Your task to perform on an android device: change text size in settings app Image 0: 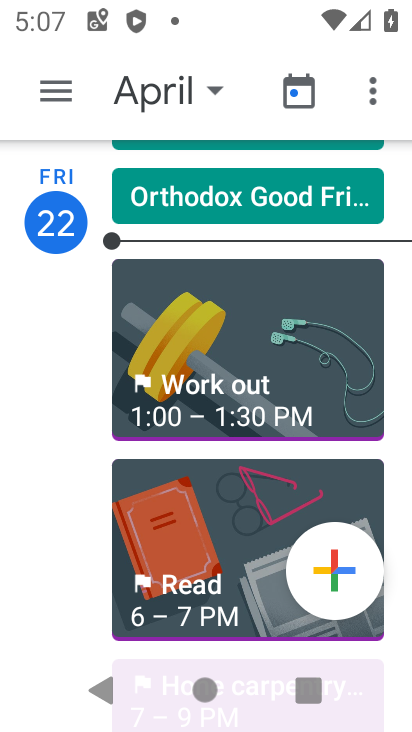
Step 0: press home button
Your task to perform on an android device: change text size in settings app Image 1: 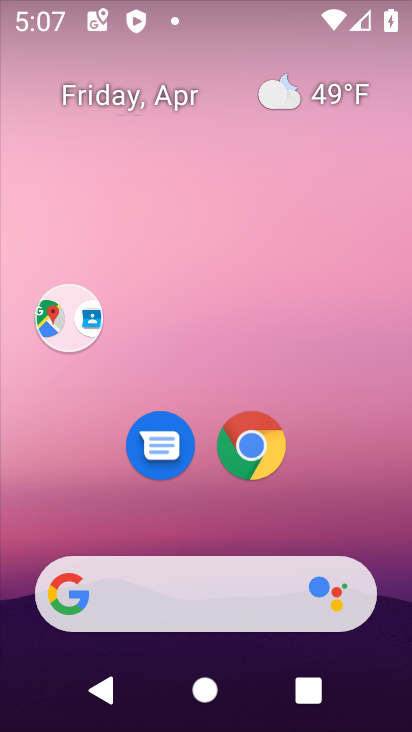
Step 1: drag from (334, 487) to (293, 151)
Your task to perform on an android device: change text size in settings app Image 2: 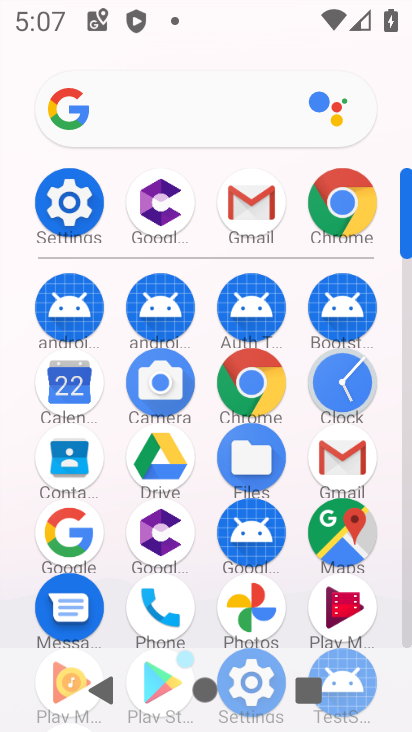
Step 2: click (73, 217)
Your task to perform on an android device: change text size in settings app Image 3: 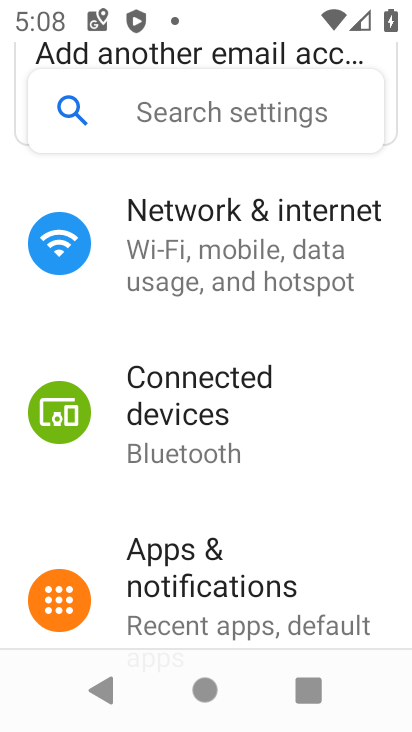
Step 3: drag from (224, 548) to (289, 199)
Your task to perform on an android device: change text size in settings app Image 4: 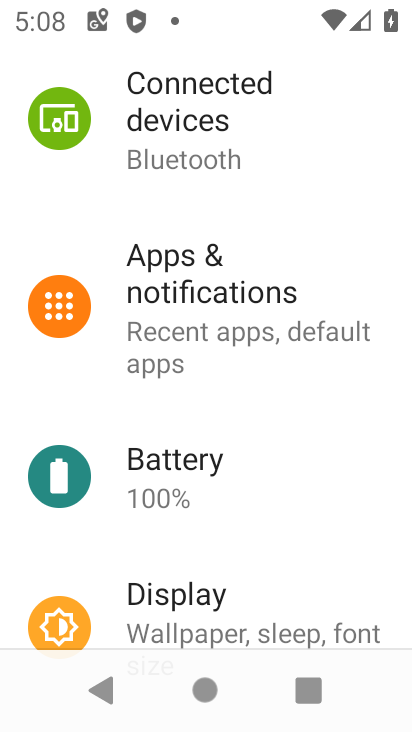
Step 4: drag from (223, 564) to (289, 212)
Your task to perform on an android device: change text size in settings app Image 5: 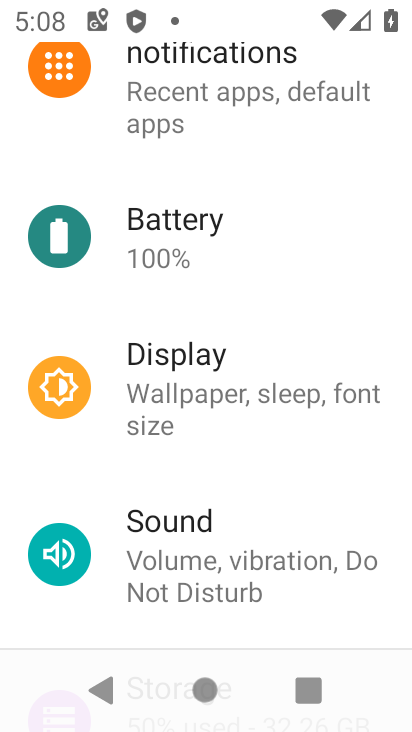
Step 5: drag from (248, 510) to (310, 145)
Your task to perform on an android device: change text size in settings app Image 6: 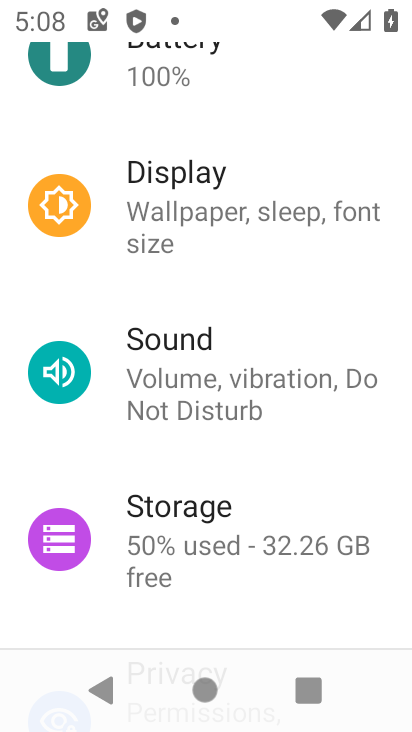
Step 6: drag from (192, 501) to (308, 182)
Your task to perform on an android device: change text size in settings app Image 7: 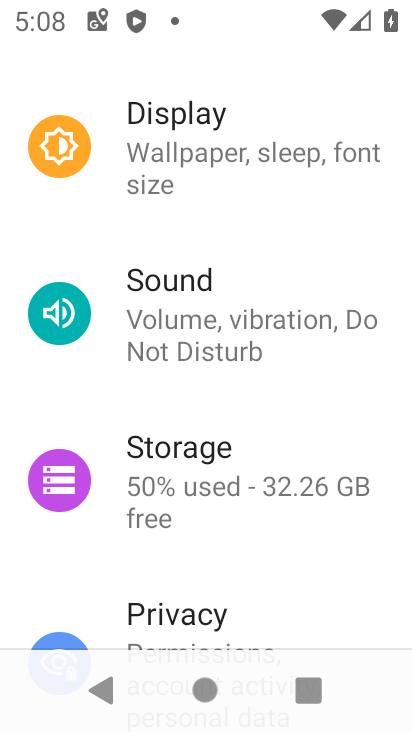
Step 7: drag from (218, 510) to (262, 187)
Your task to perform on an android device: change text size in settings app Image 8: 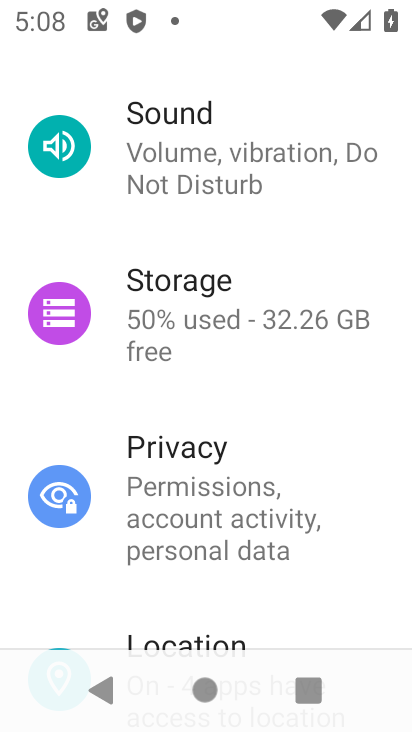
Step 8: drag from (206, 538) to (295, 220)
Your task to perform on an android device: change text size in settings app Image 9: 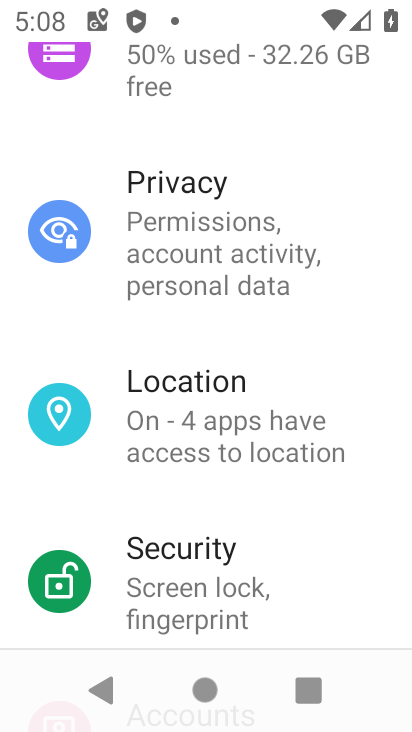
Step 9: drag from (248, 558) to (303, 236)
Your task to perform on an android device: change text size in settings app Image 10: 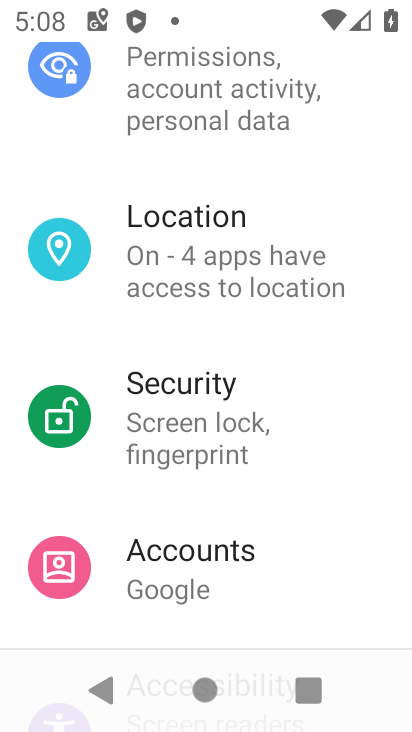
Step 10: drag from (167, 535) to (240, 252)
Your task to perform on an android device: change text size in settings app Image 11: 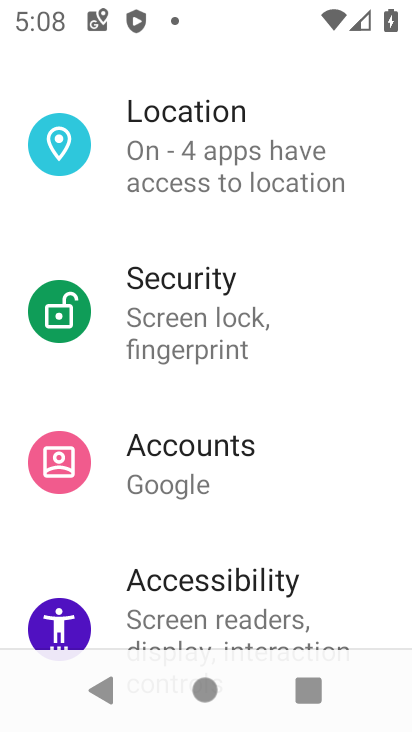
Step 11: drag from (191, 641) to (294, 342)
Your task to perform on an android device: change text size in settings app Image 12: 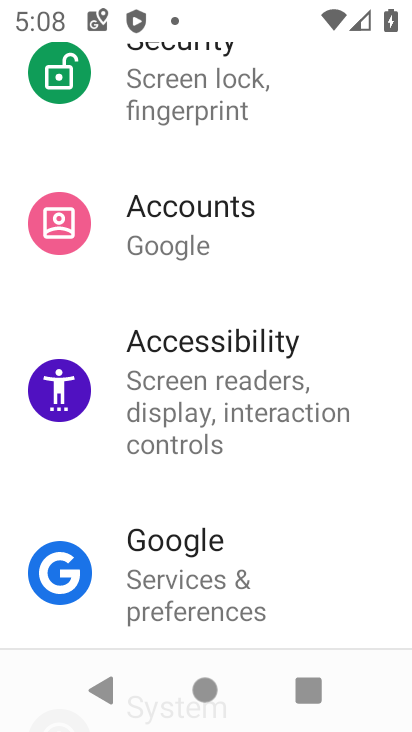
Step 12: drag from (276, 507) to (295, 232)
Your task to perform on an android device: change text size in settings app Image 13: 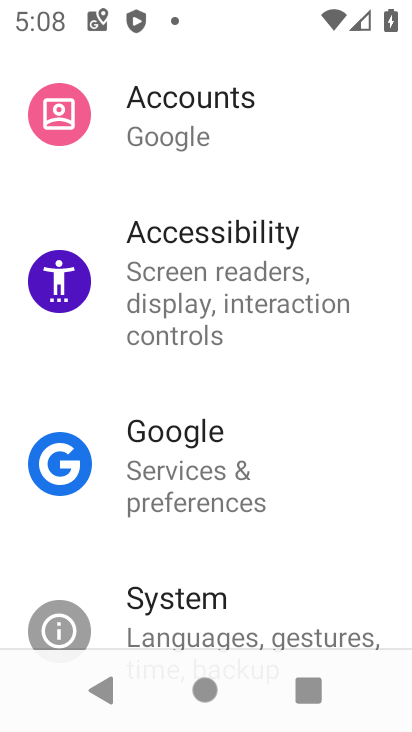
Step 13: drag from (254, 553) to (323, 189)
Your task to perform on an android device: change text size in settings app Image 14: 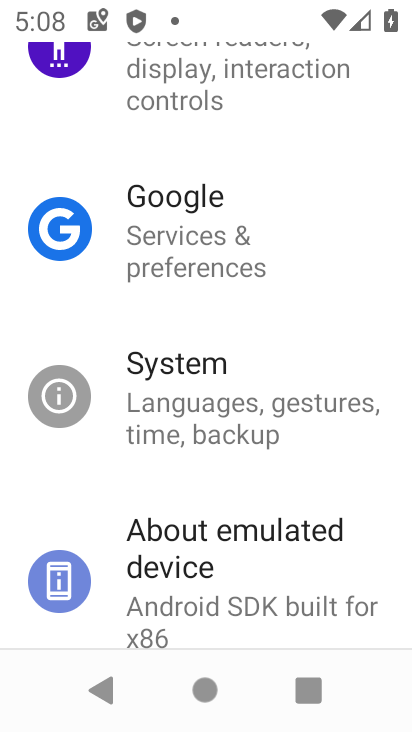
Step 14: click (267, 565)
Your task to perform on an android device: change text size in settings app Image 15: 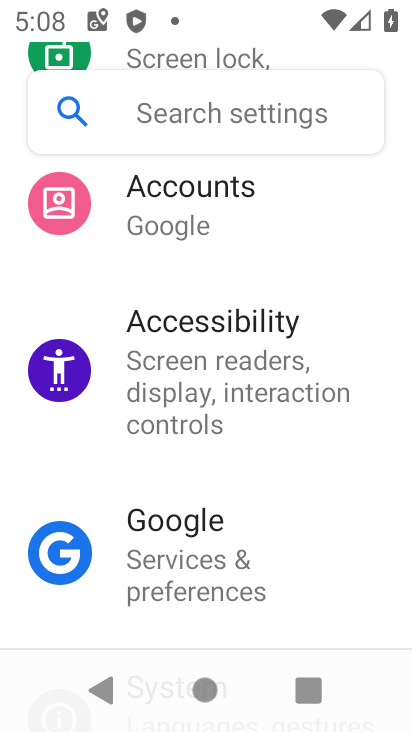
Step 15: drag from (267, 486) to (328, 138)
Your task to perform on an android device: change text size in settings app Image 16: 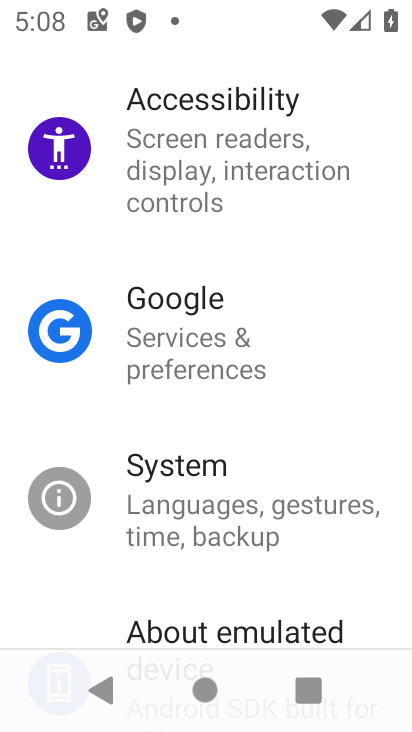
Step 16: drag from (285, 444) to (318, 164)
Your task to perform on an android device: change text size in settings app Image 17: 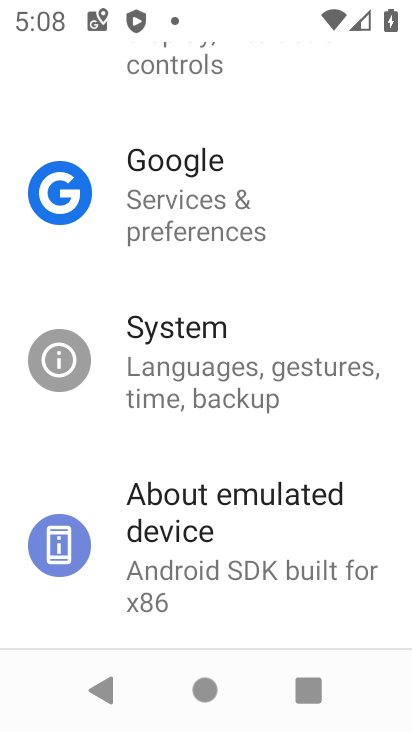
Step 17: drag from (309, 172) to (286, 480)
Your task to perform on an android device: change text size in settings app Image 18: 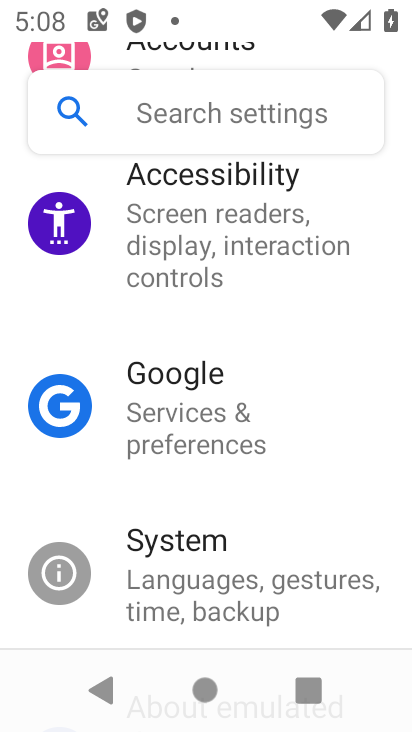
Step 18: click (234, 252)
Your task to perform on an android device: change text size in settings app Image 19: 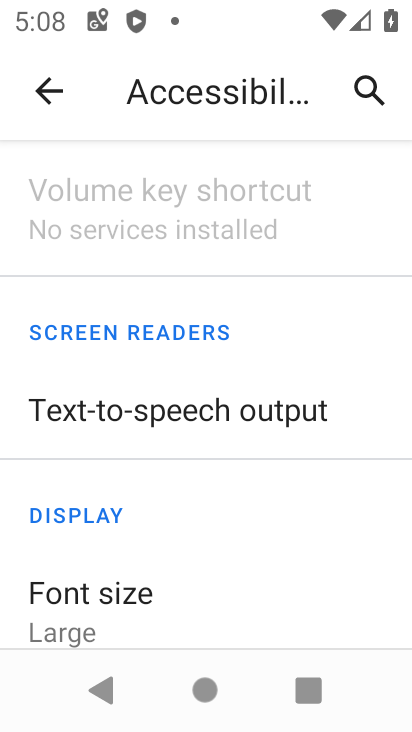
Step 19: click (102, 627)
Your task to perform on an android device: change text size in settings app Image 20: 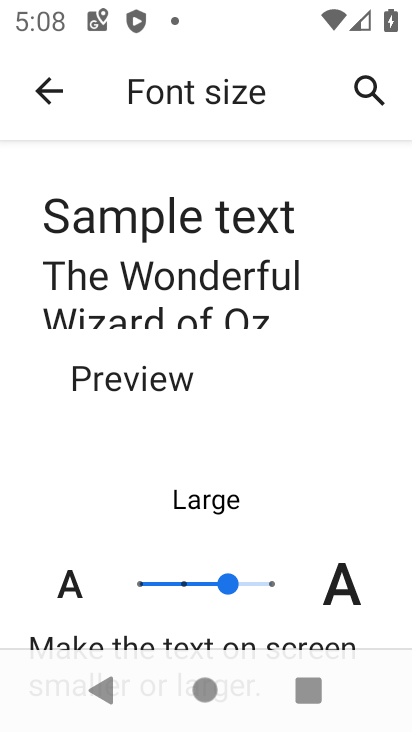
Step 20: click (180, 581)
Your task to perform on an android device: change text size in settings app Image 21: 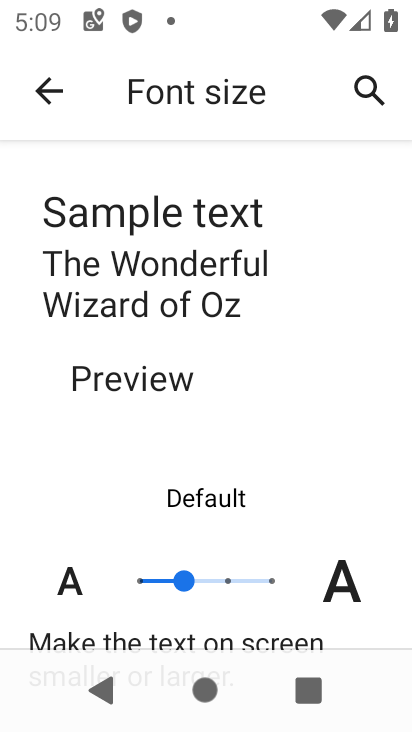
Step 21: task complete